Your task to perform on an android device: uninstall "Reddit" Image 0: 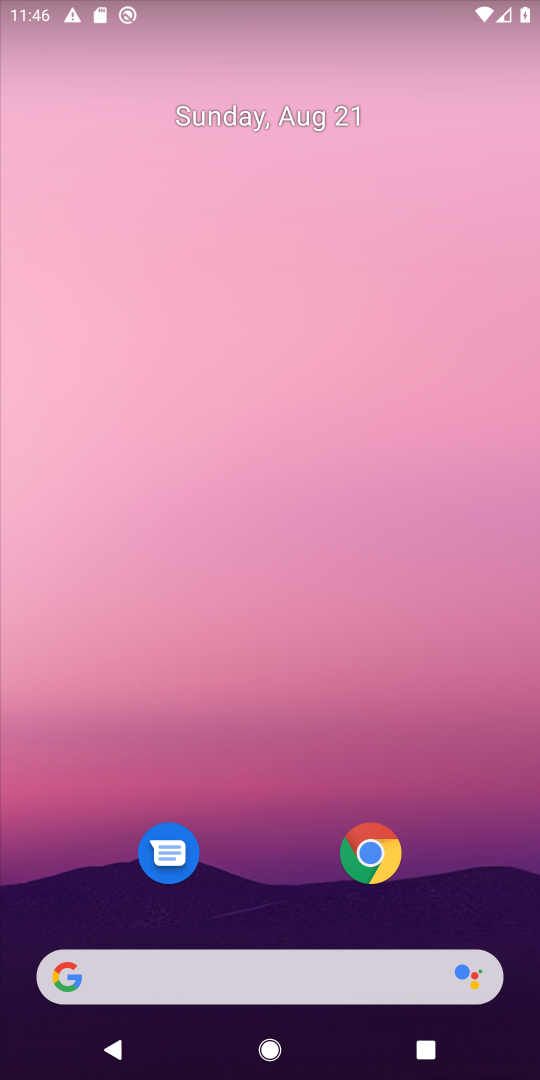
Step 0: drag from (222, 917) to (209, 333)
Your task to perform on an android device: uninstall "Reddit" Image 1: 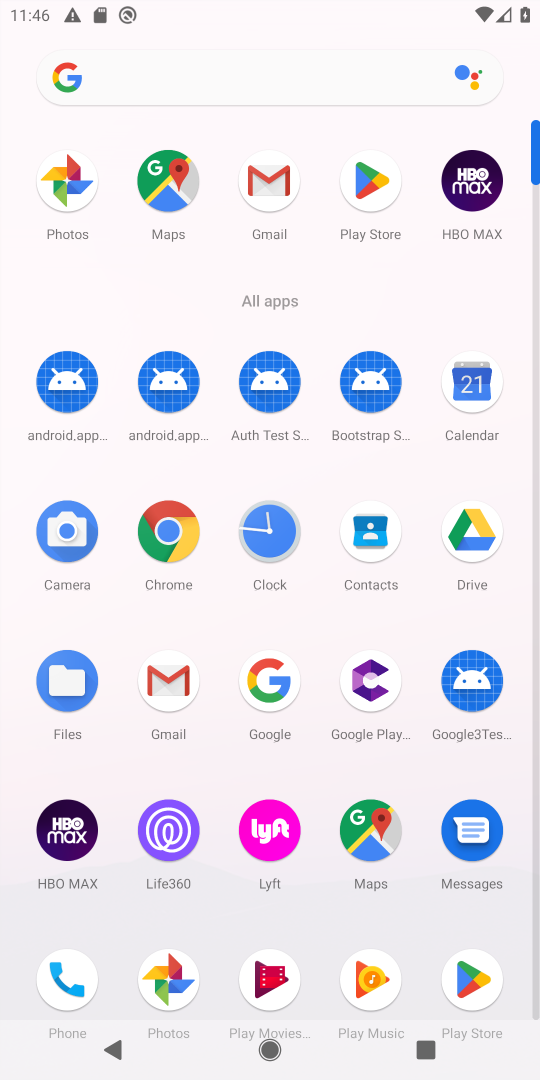
Step 1: click (381, 195)
Your task to perform on an android device: uninstall "Reddit" Image 2: 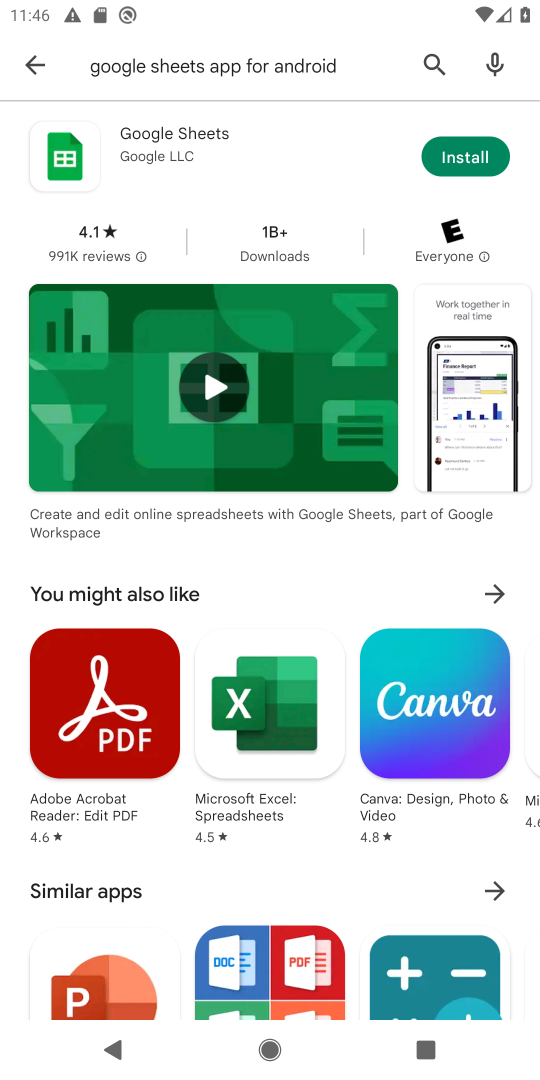
Step 2: click (35, 52)
Your task to perform on an android device: uninstall "Reddit" Image 3: 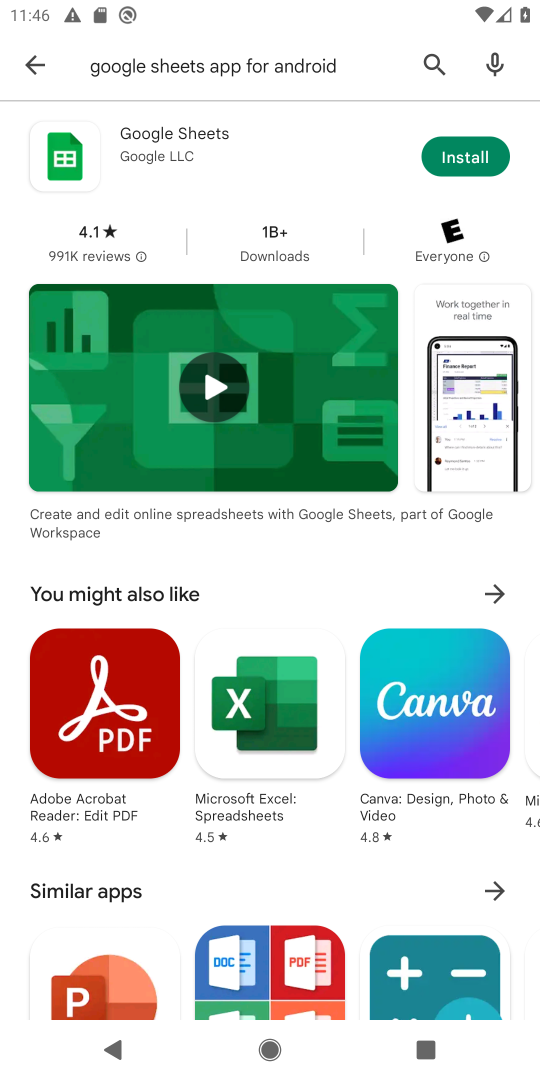
Step 3: click (424, 51)
Your task to perform on an android device: uninstall "Reddit" Image 4: 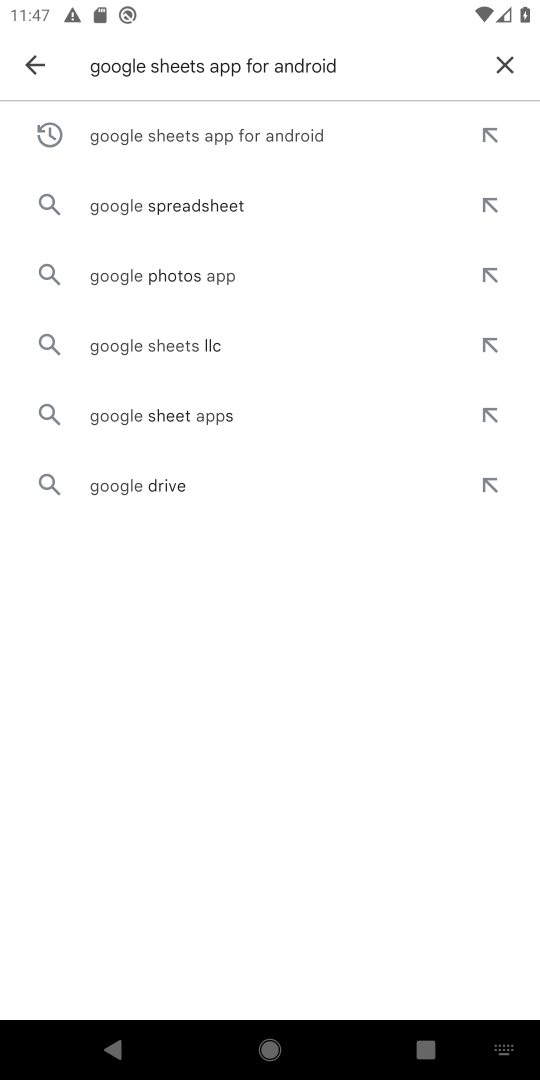
Step 4: click (505, 69)
Your task to perform on an android device: uninstall "Reddit" Image 5: 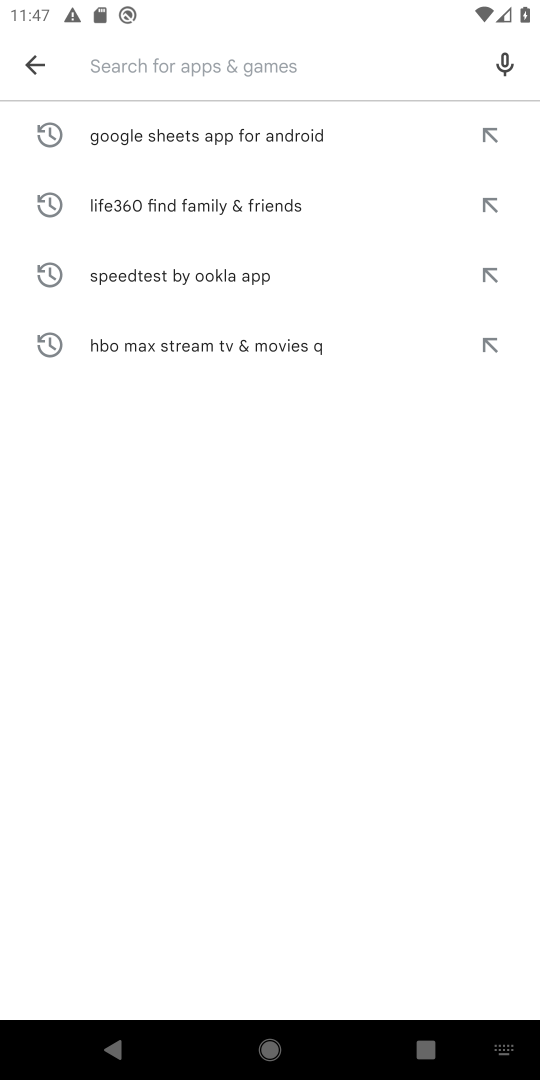
Step 5: click (219, 53)
Your task to perform on an android device: uninstall "Reddit" Image 6: 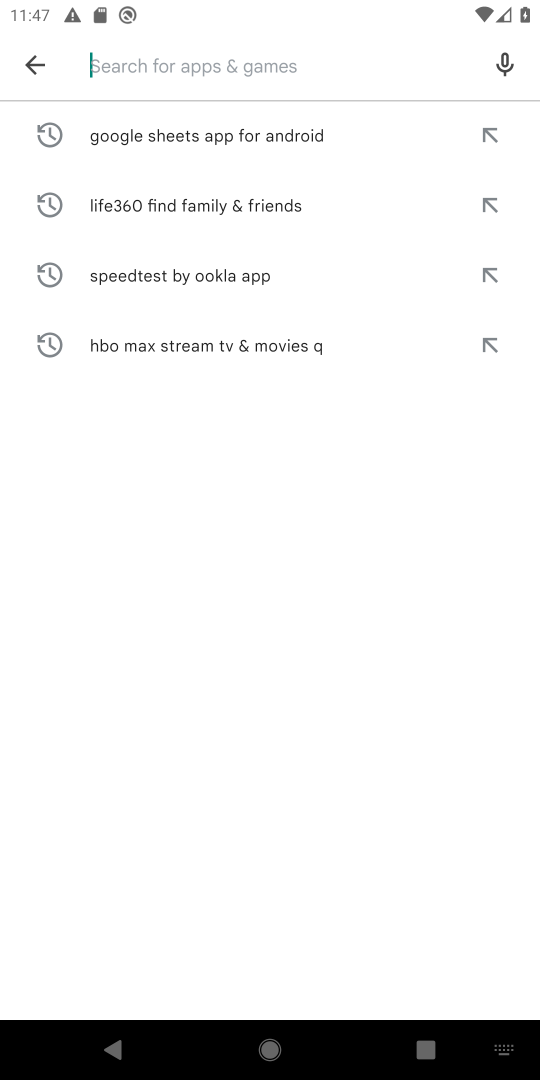
Step 6: type "Reddit "
Your task to perform on an android device: uninstall "Reddit" Image 7: 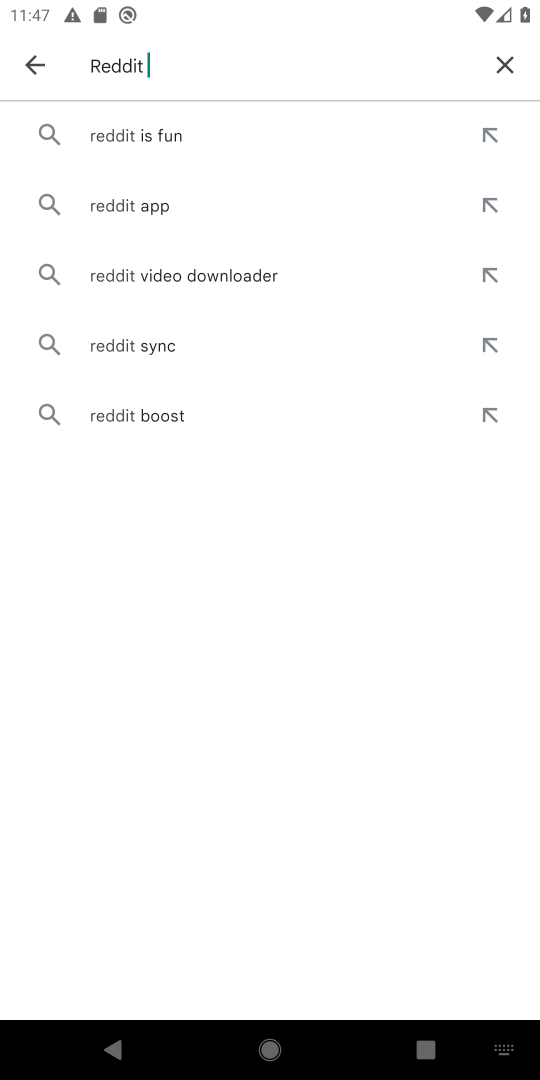
Step 7: click (169, 210)
Your task to perform on an android device: uninstall "Reddit" Image 8: 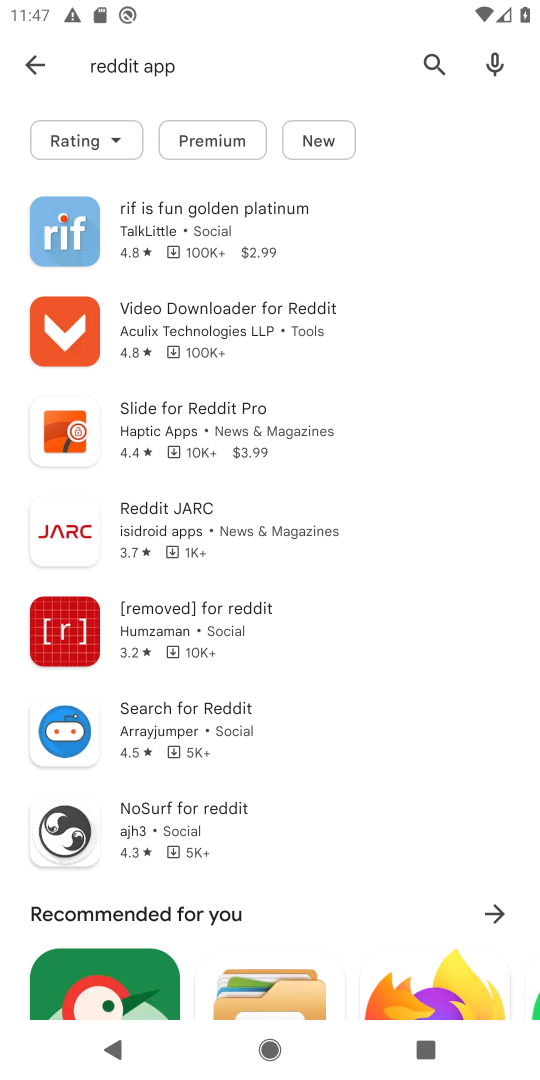
Step 8: click (211, 502)
Your task to perform on an android device: uninstall "Reddit" Image 9: 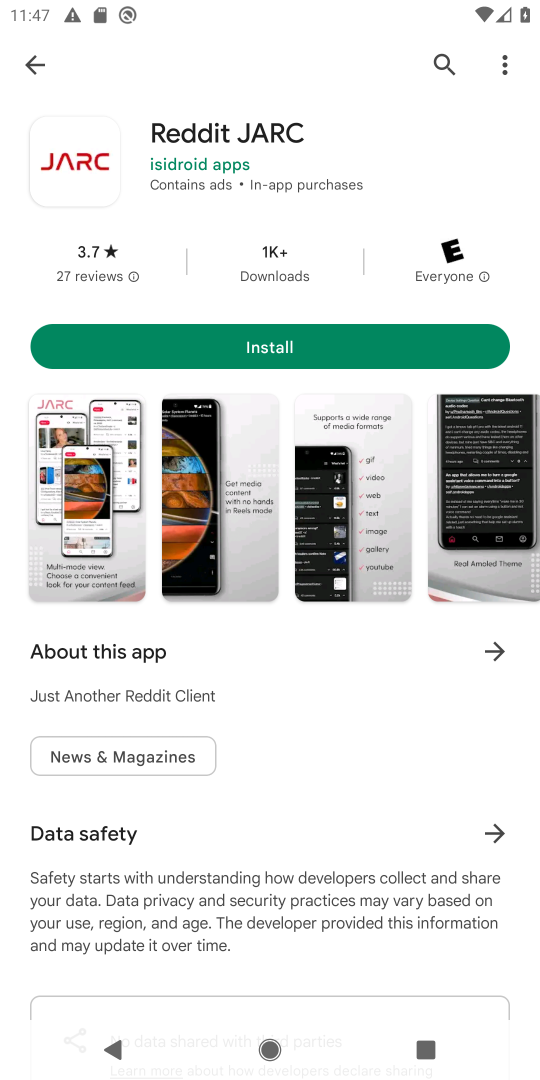
Step 9: click (41, 39)
Your task to perform on an android device: uninstall "Reddit" Image 10: 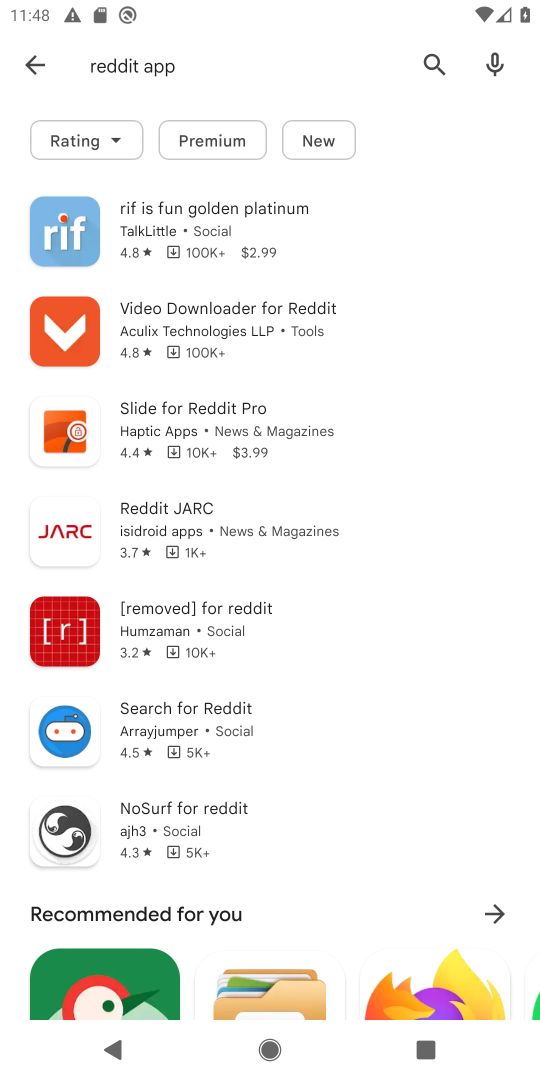
Step 10: click (419, 57)
Your task to perform on an android device: uninstall "Reddit" Image 11: 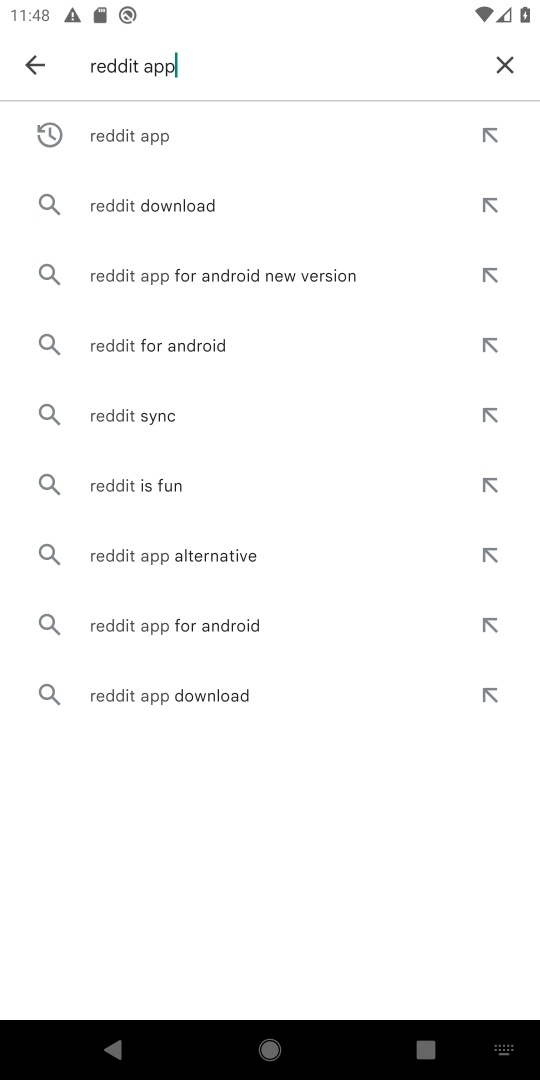
Step 11: click (266, 54)
Your task to perform on an android device: uninstall "Reddit" Image 12: 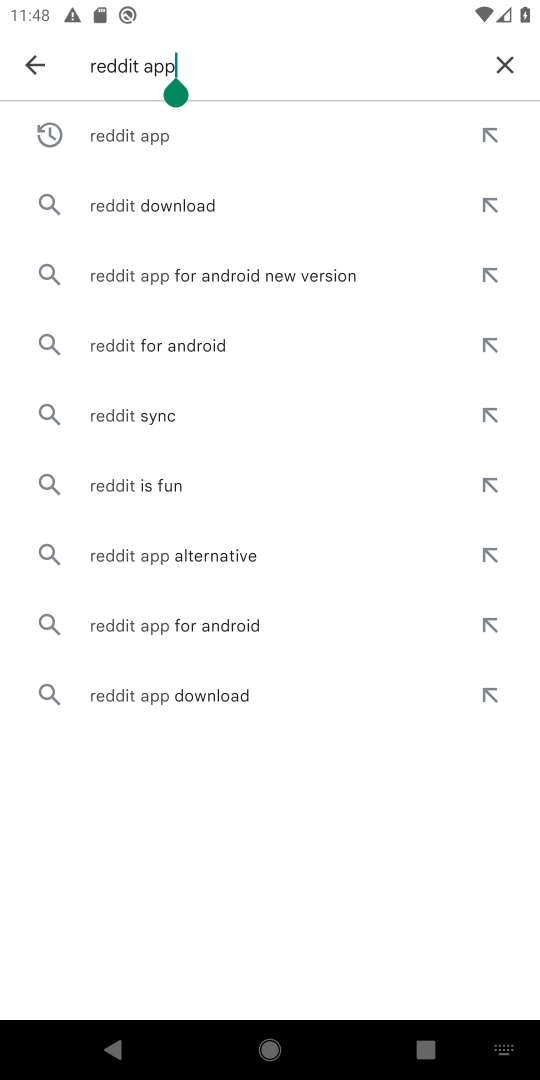
Step 12: click (502, 62)
Your task to perform on an android device: uninstall "Reddit" Image 13: 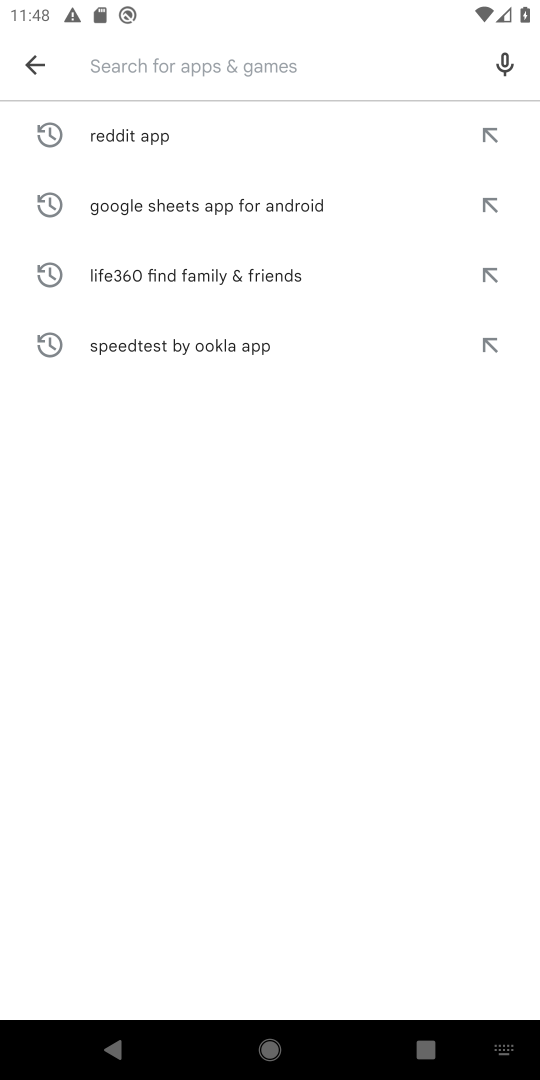
Step 13: click (257, 62)
Your task to perform on an android device: uninstall "Reddit" Image 14: 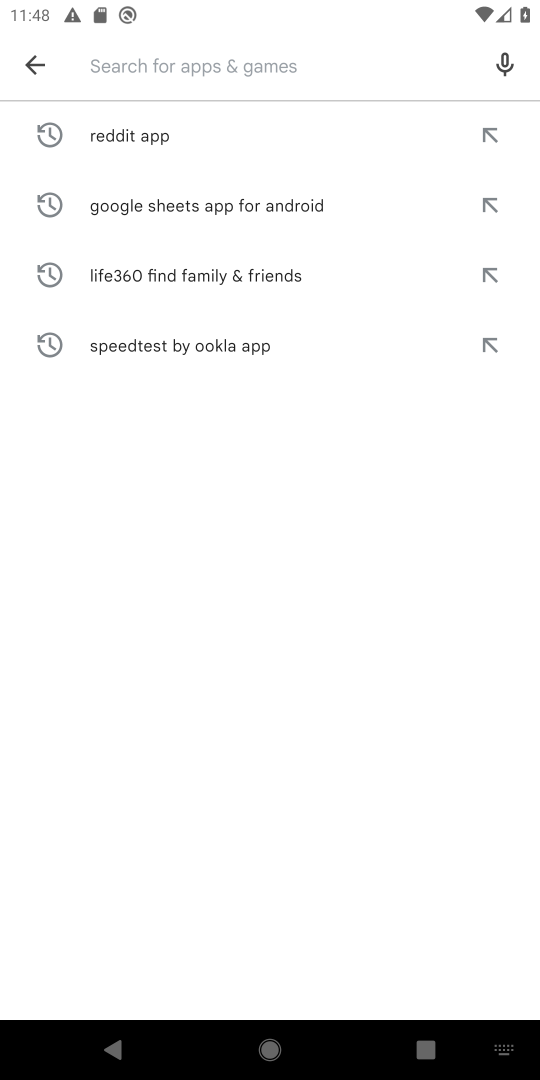
Step 14: type "reddit "
Your task to perform on an android device: uninstall "Reddit" Image 15: 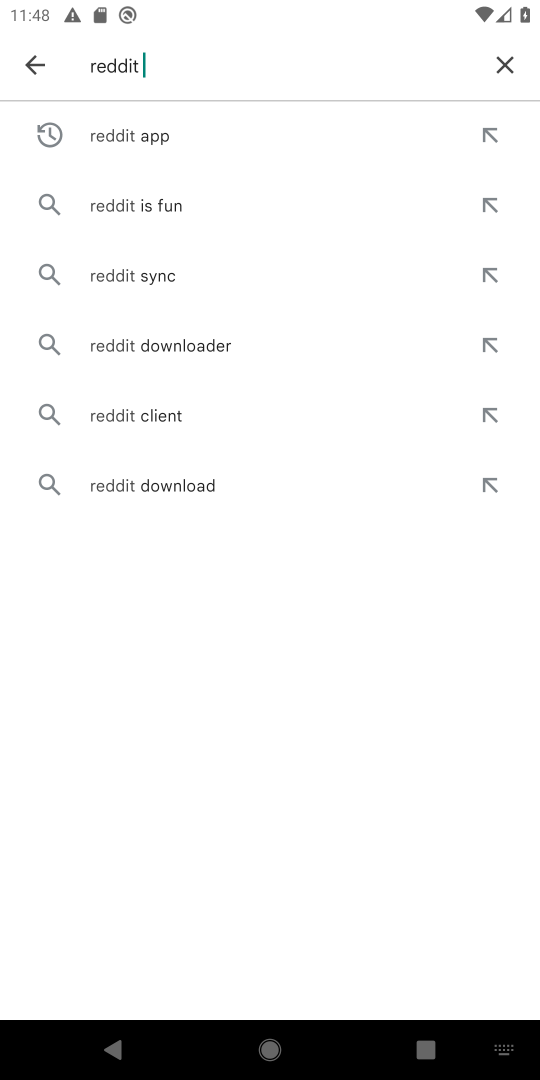
Step 15: click (199, 132)
Your task to perform on an android device: uninstall "Reddit" Image 16: 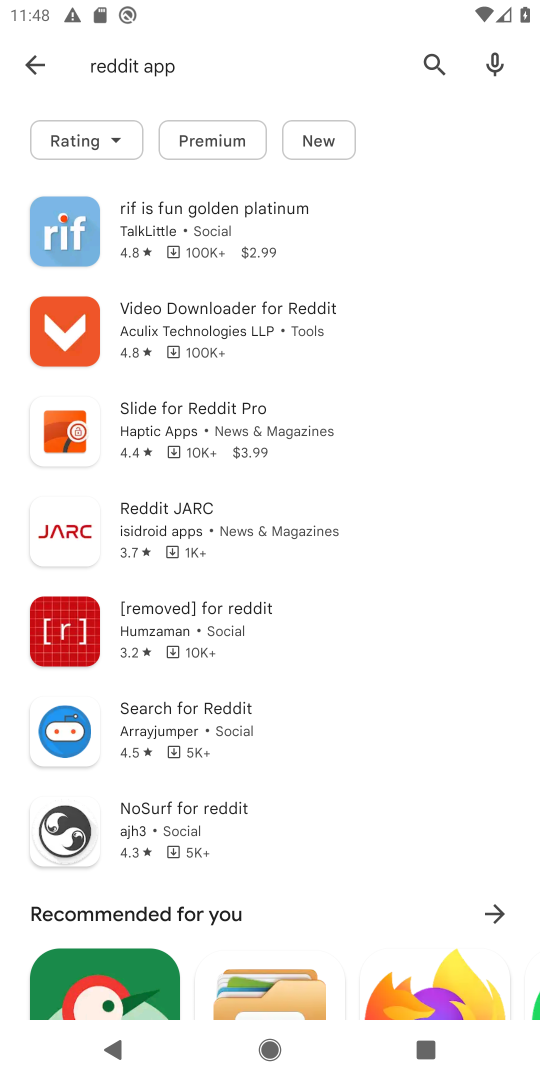
Step 16: task complete